Your task to perform on an android device: Open calendar and show me the third week of next month Image 0: 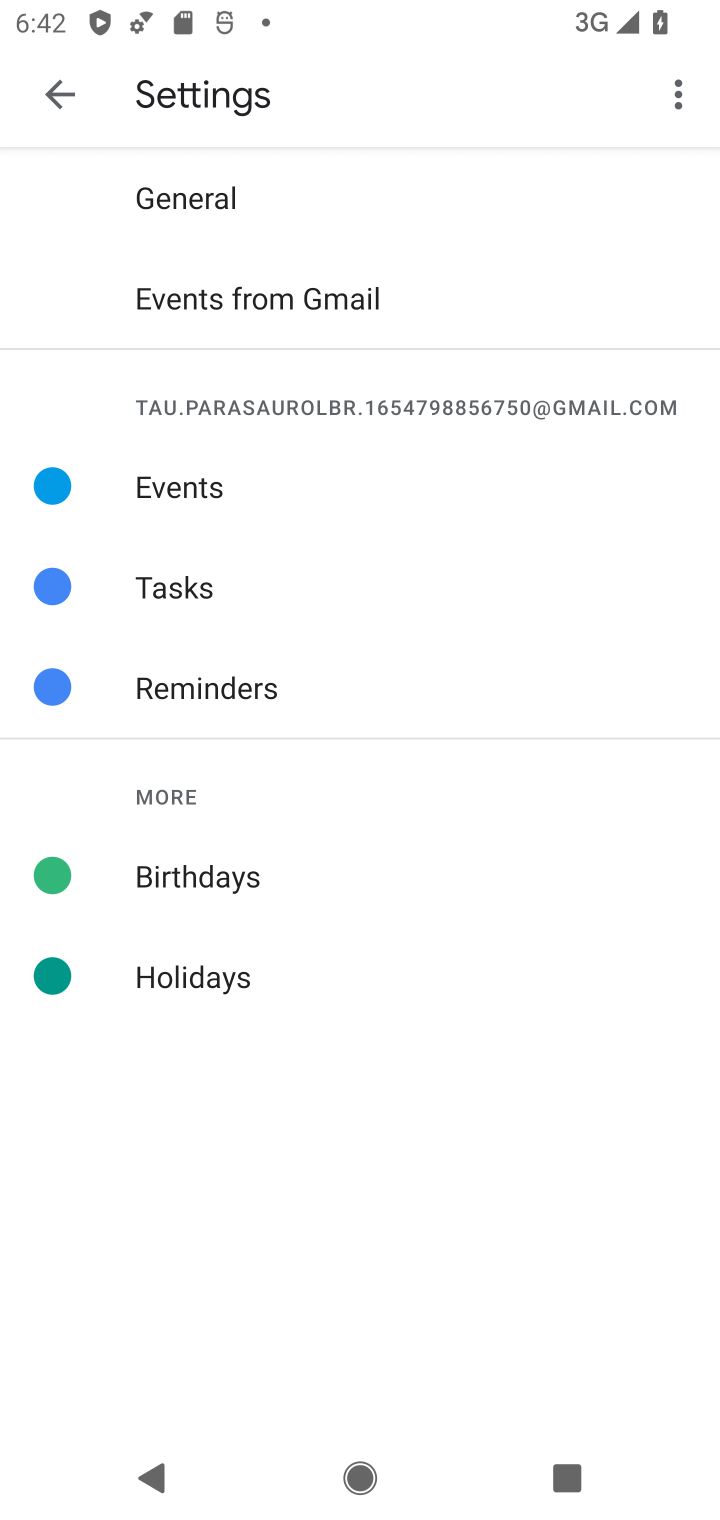
Step 0: press home button
Your task to perform on an android device: Open calendar and show me the third week of next month Image 1: 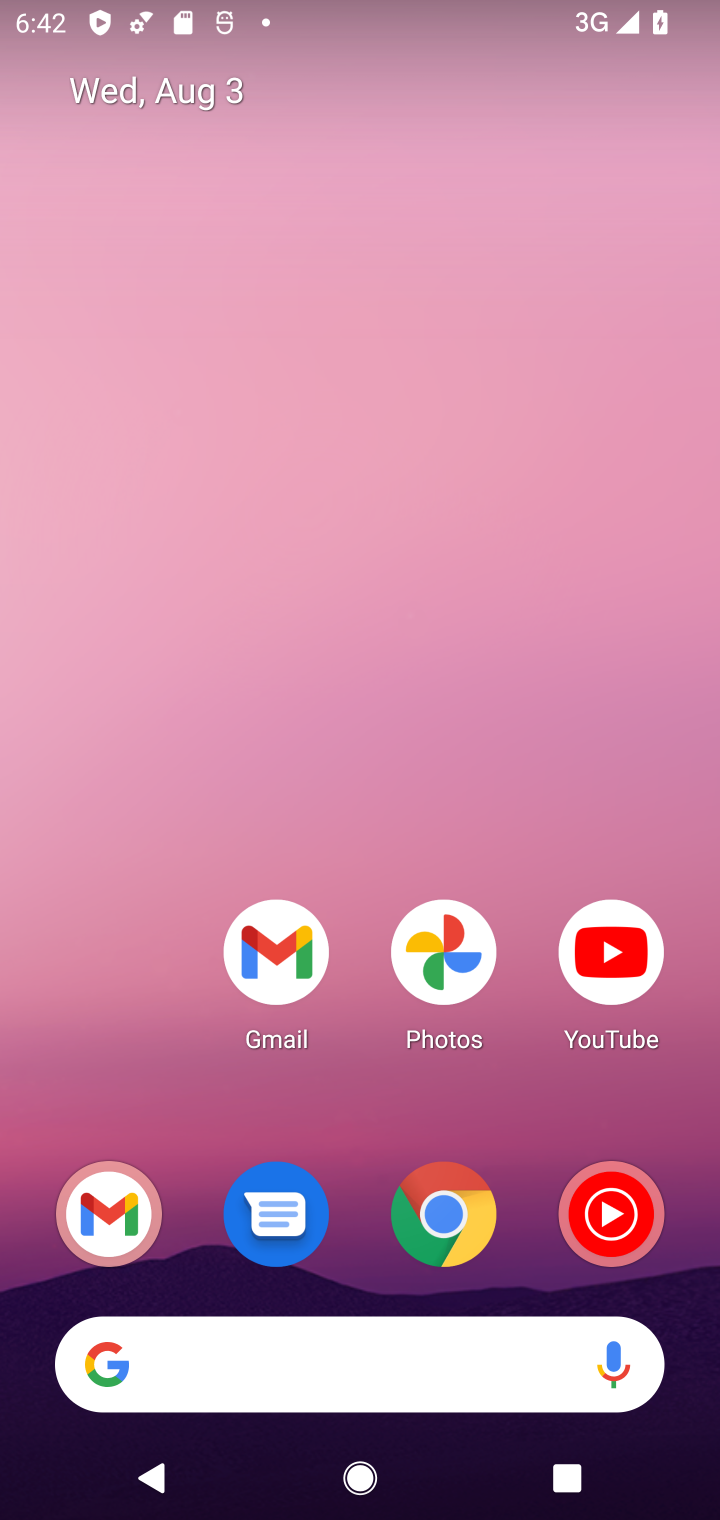
Step 1: drag from (52, 1101) to (286, 0)
Your task to perform on an android device: Open calendar and show me the third week of next month Image 2: 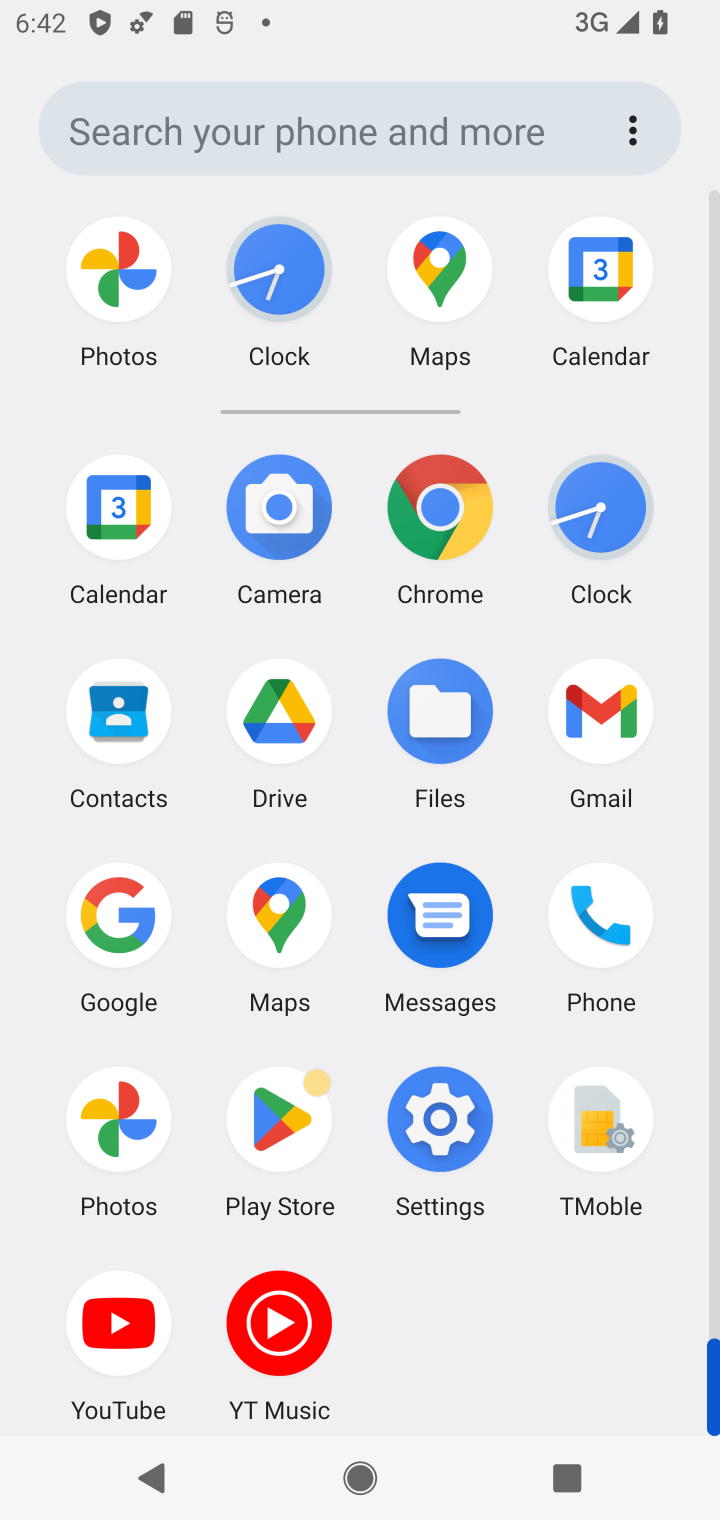
Step 2: click (575, 300)
Your task to perform on an android device: Open calendar and show me the third week of next month Image 3: 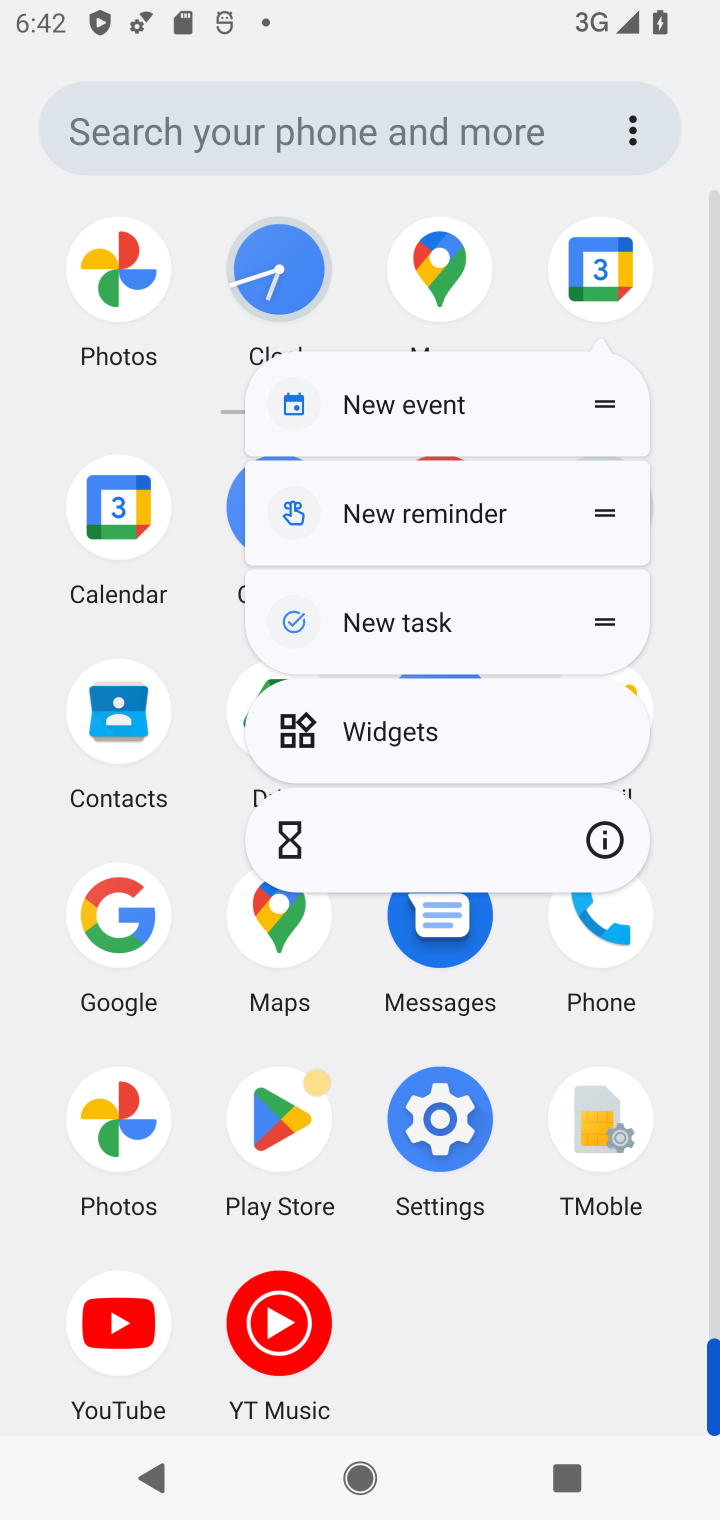
Step 3: click (575, 298)
Your task to perform on an android device: Open calendar and show me the third week of next month Image 4: 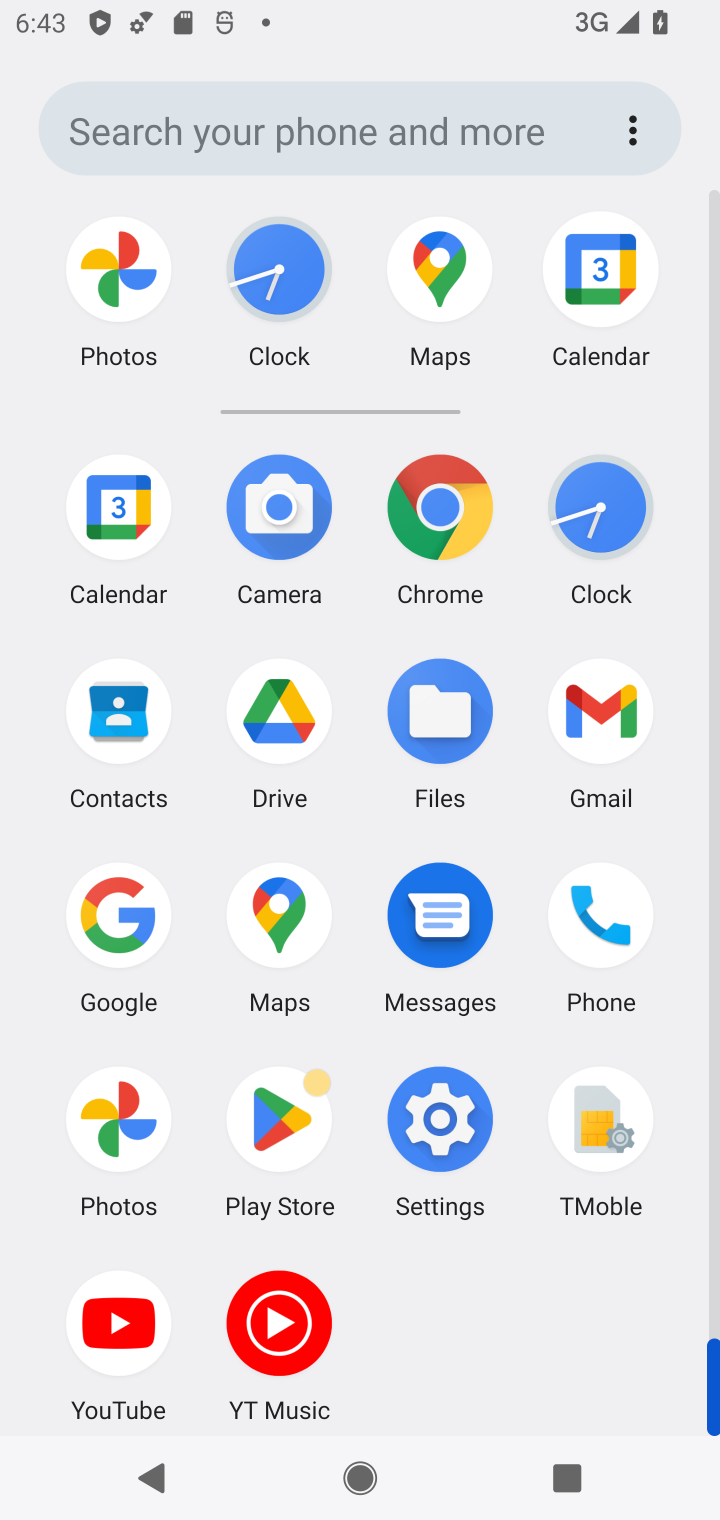
Step 4: click (575, 296)
Your task to perform on an android device: Open calendar and show me the third week of next month Image 5: 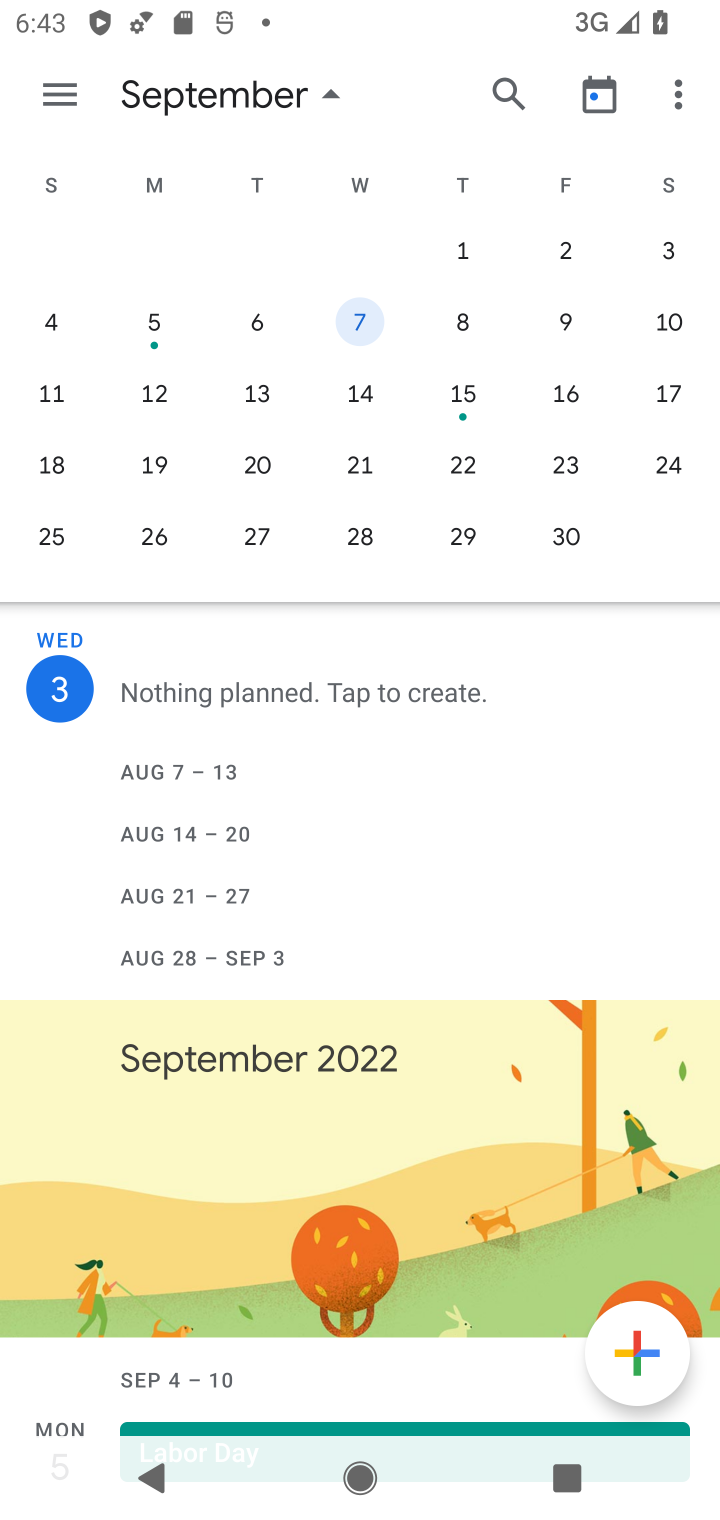
Step 5: drag from (386, 465) to (346, 1)
Your task to perform on an android device: Open calendar and show me the third week of next month Image 6: 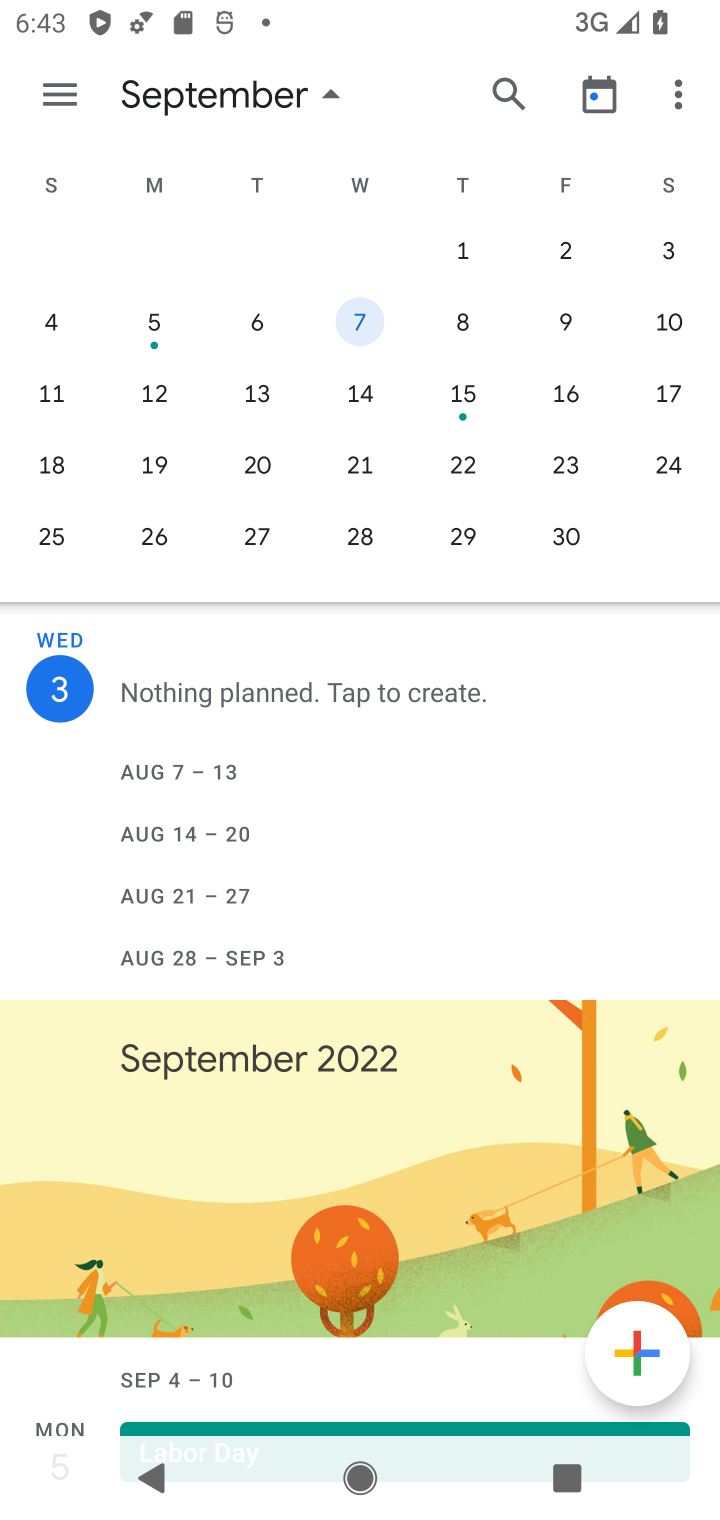
Step 6: click (373, 463)
Your task to perform on an android device: Open calendar and show me the third week of next month Image 7: 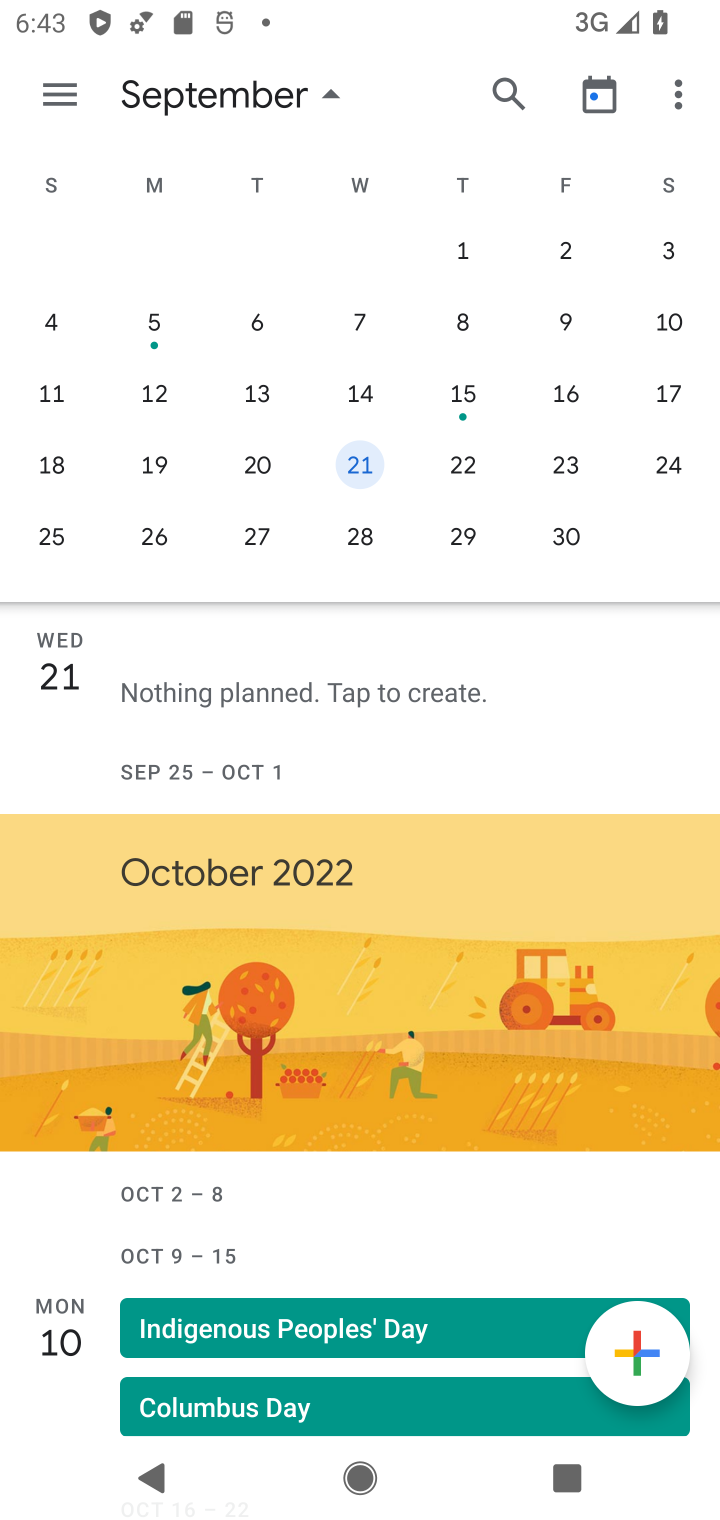
Step 7: task complete